Your task to perform on an android device: Open the web browser Image 0: 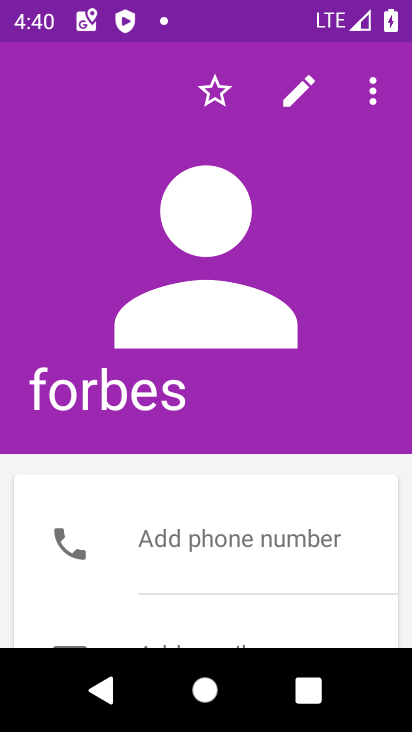
Step 0: press home button
Your task to perform on an android device: Open the web browser Image 1: 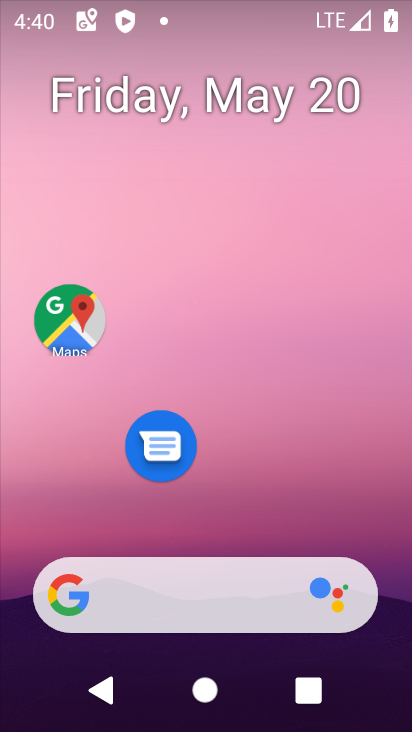
Step 1: drag from (194, 555) to (220, 24)
Your task to perform on an android device: Open the web browser Image 2: 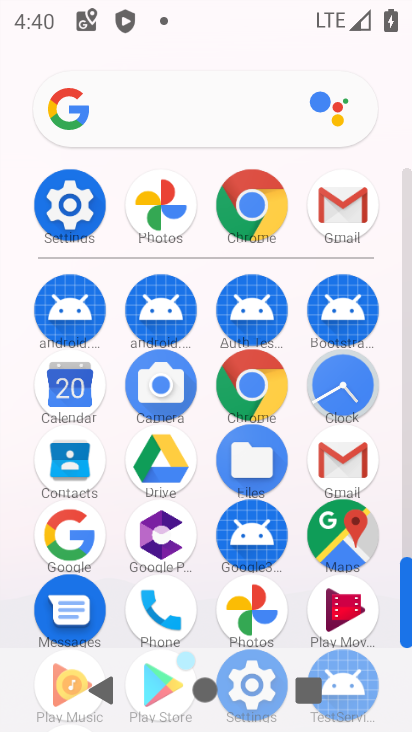
Step 2: click (253, 220)
Your task to perform on an android device: Open the web browser Image 3: 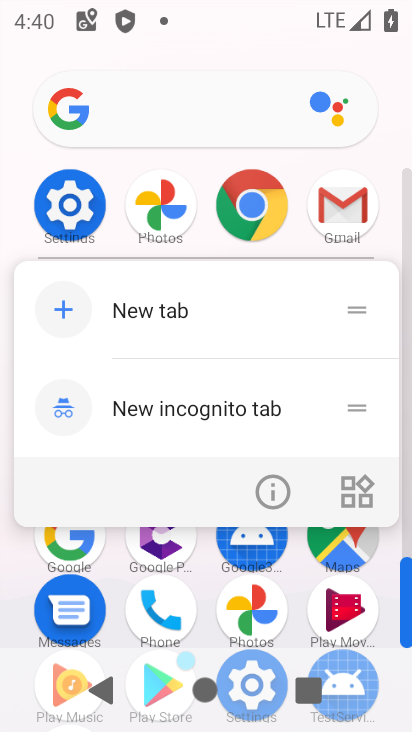
Step 3: click (253, 215)
Your task to perform on an android device: Open the web browser Image 4: 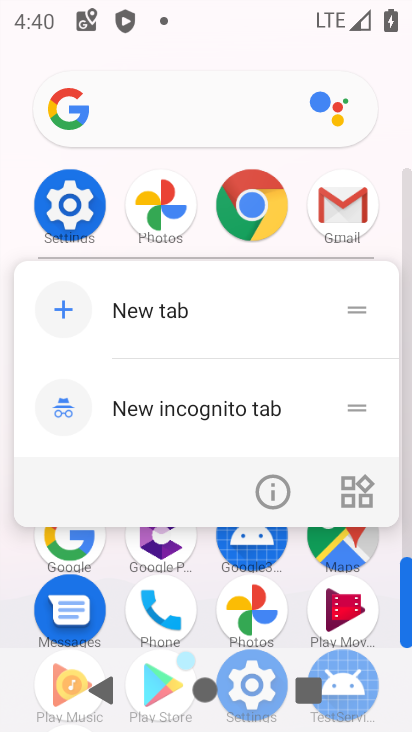
Step 4: click (253, 214)
Your task to perform on an android device: Open the web browser Image 5: 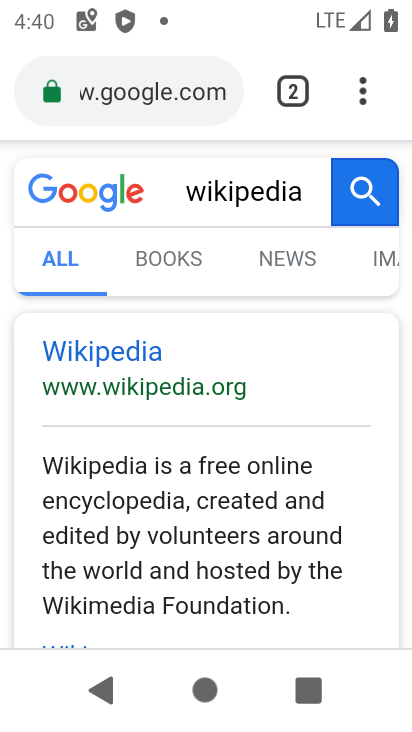
Step 5: task complete